Your task to perform on an android device: Search for vegetarian restaurants on Maps Image 0: 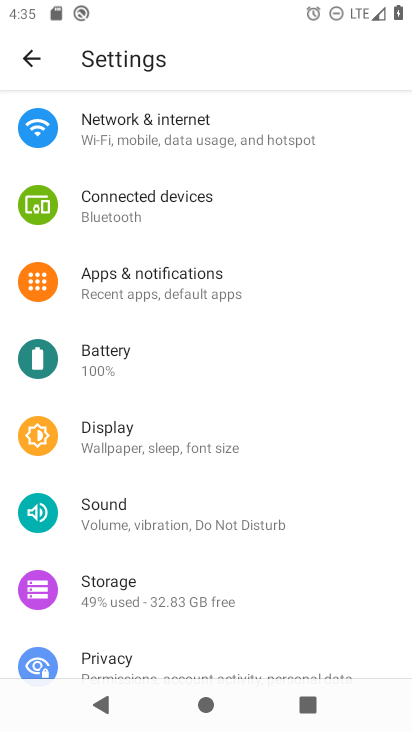
Step 0: press enter
Your task to perform on an android device: Search for vegetarian restaurants on Maps Image 1: 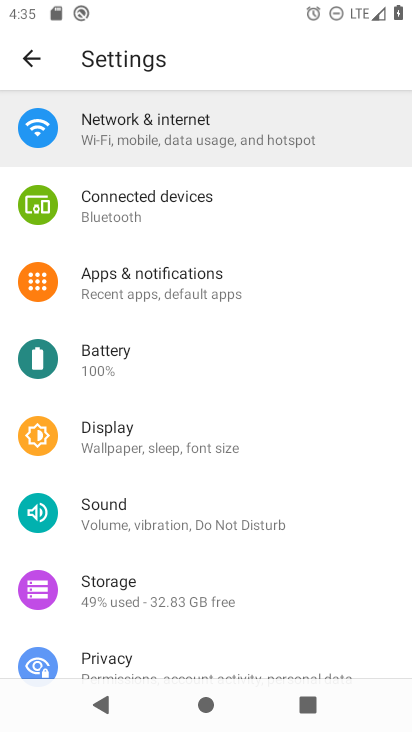
Step 1: press home button
Your task to perform on an android device: Search for vegetarian restaurants on Maps Image 2: 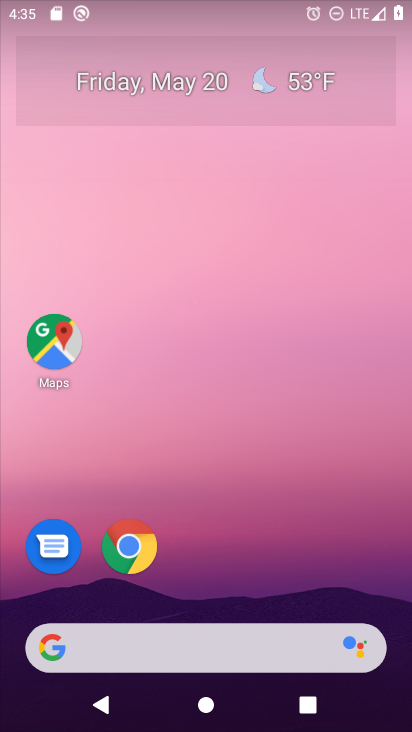
Step 2: click (61, 333)
Your task to perform on an android device: Search for vegetarian restaurants on Maps Image 3: 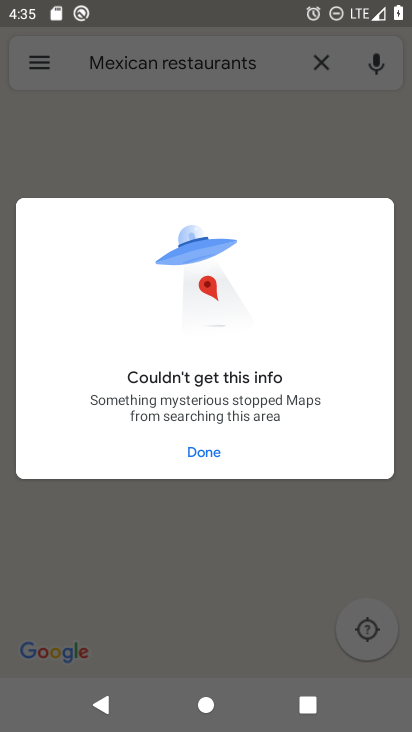
Step 3: click (202, 445)
Your task to perform on an android device: Search for vegetarian restaurants on Maps Image 4: 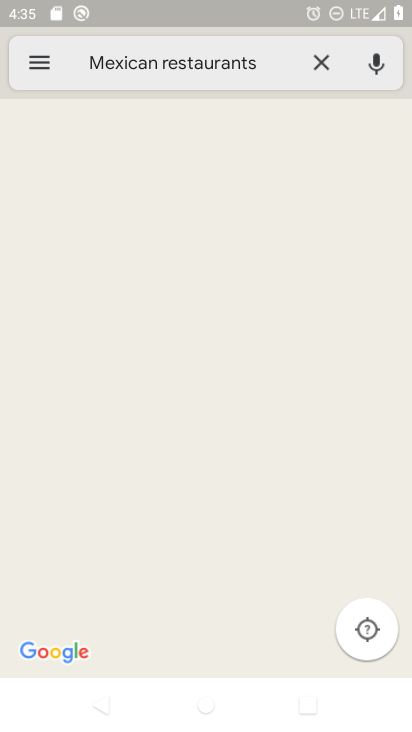
Step 4: click (322, 53)
Your task to perform on an android device: Search for vegetarian restaurants on Maps Image 5: 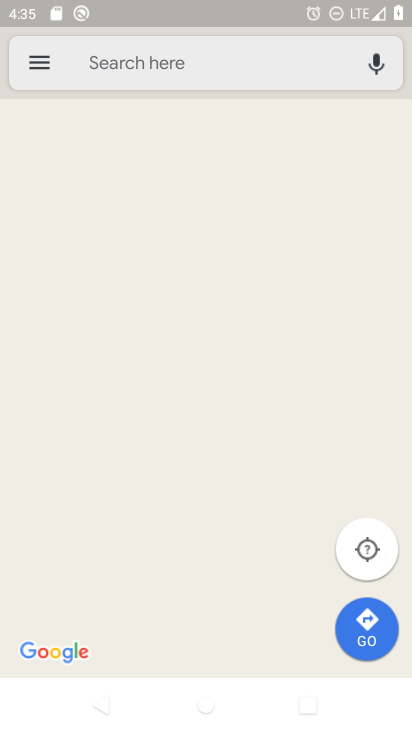
Step 5: click (229, 61)
Your task to perform on an android device: Search for vegetarian restaurants on Maps Image 6: 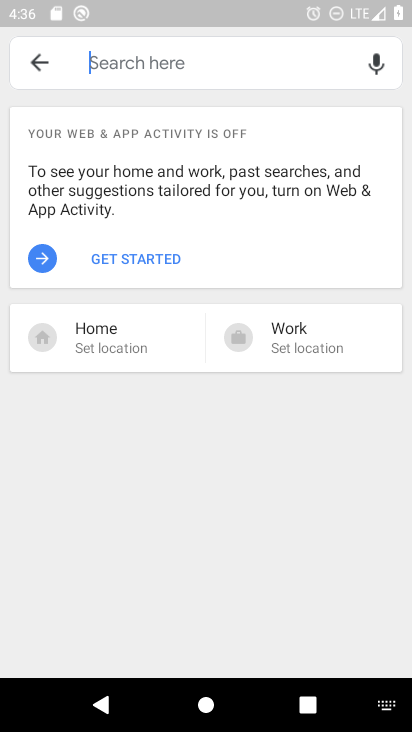
Step 6: type "vegetarian restaurants"
Your task to perform on an android device: Search for vegetarian restaurants on Maps Image 7: 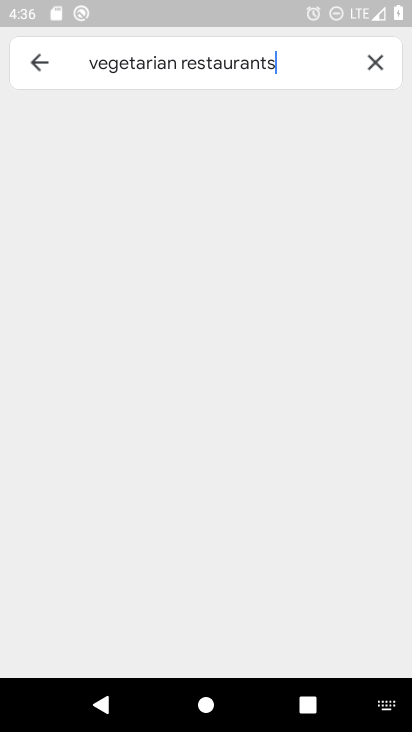
Step 7: press enter
Your task to perform on an android device: Search for vegetarian restaurants on Maps Image 8: 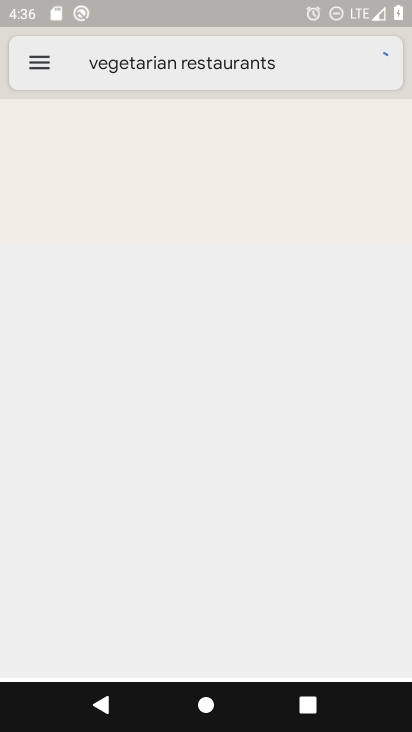
Step 8: press enter
Your task to perform on an android device: Search for vegetarian restaurants on Maps Image 9: 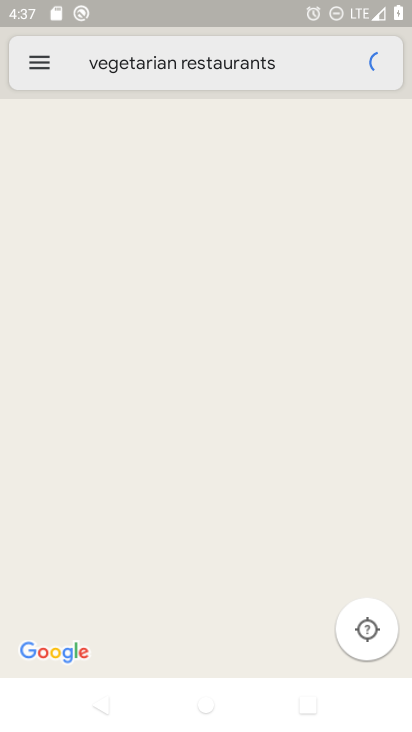
Step 9: task complete